Your task to perform on an android device: Go to eBay Image 0: 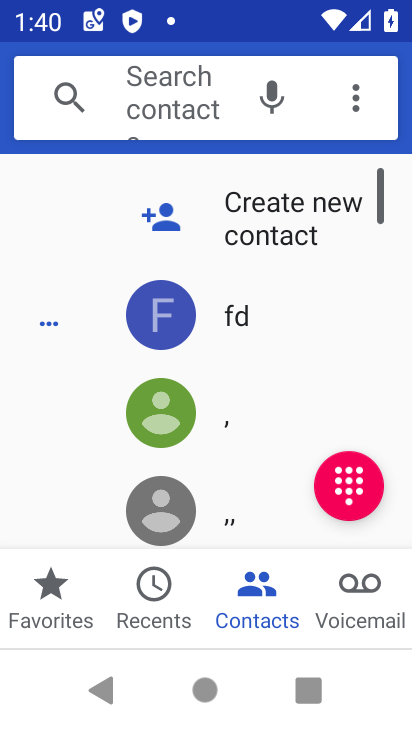
Step 0: press home button
Your task to perform on an android device: Go to eBay Image 1: 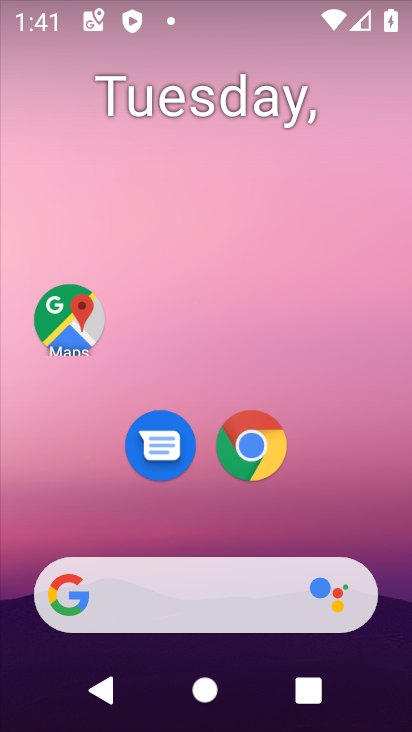
Step 1: click (259, 447)
Your task to perform on an android device: Go to eBay Image 2: 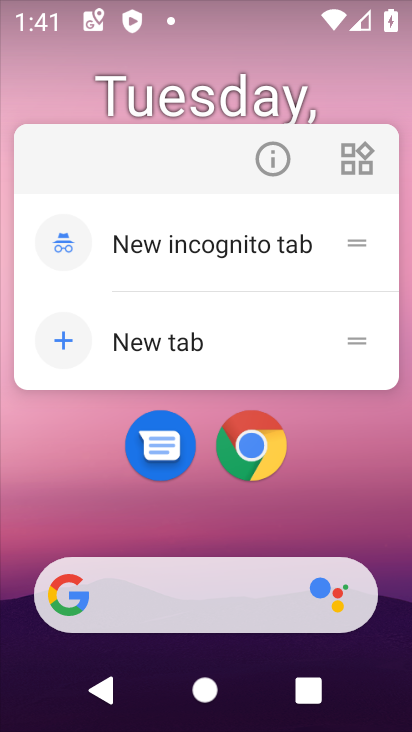
Step 2: click (259, 444)
Your task to perform on an android device: Go to eBay Image 3: 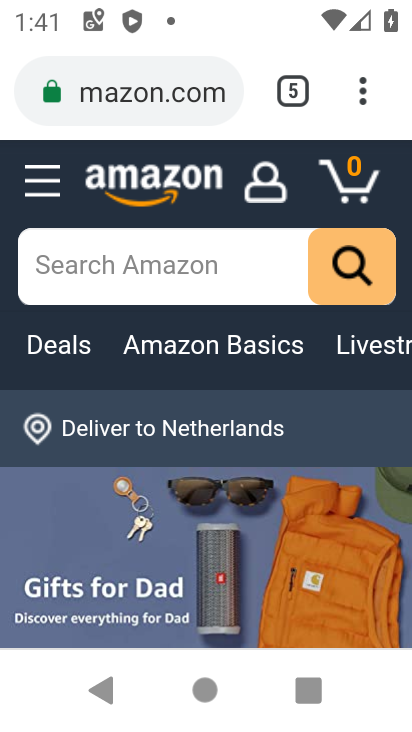
Step 3: click (172, 110)
Your task to perform on an android device: Go to eBay Image 4: 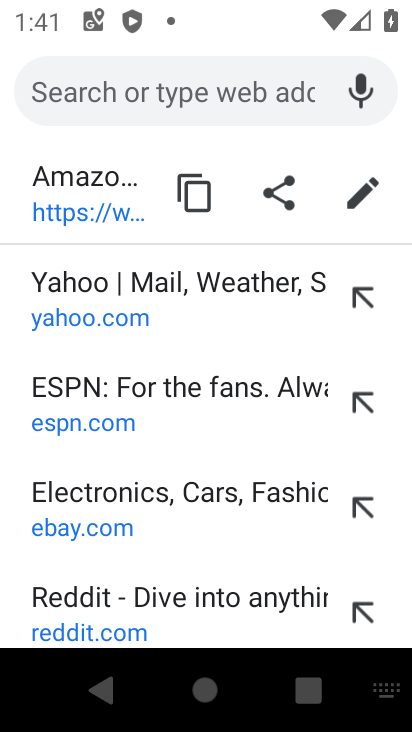
Step 4: drag from (139, 538) to (152, 250)
Your task to perform on an android device: Go to eBay Image 5: 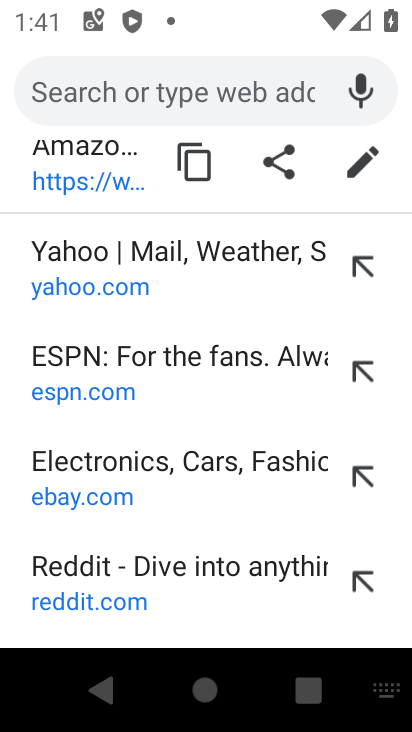
Step 5: type "ebay"
Your task to perform on an android device: Go to eBay Image 6: 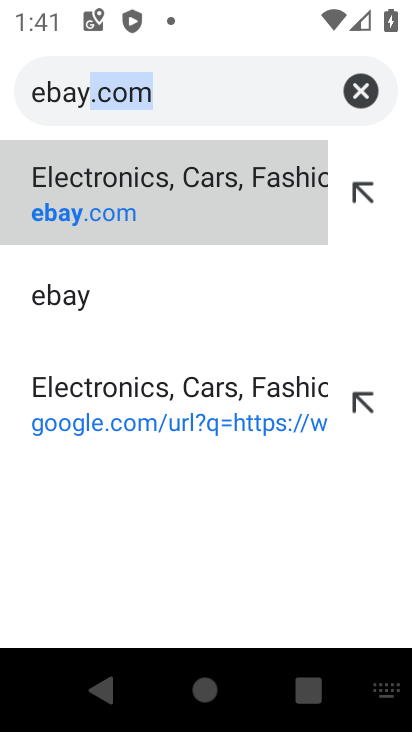
Step 6: click (117, 196)
Your task to perform on an android device: Go to eBay Image 7: 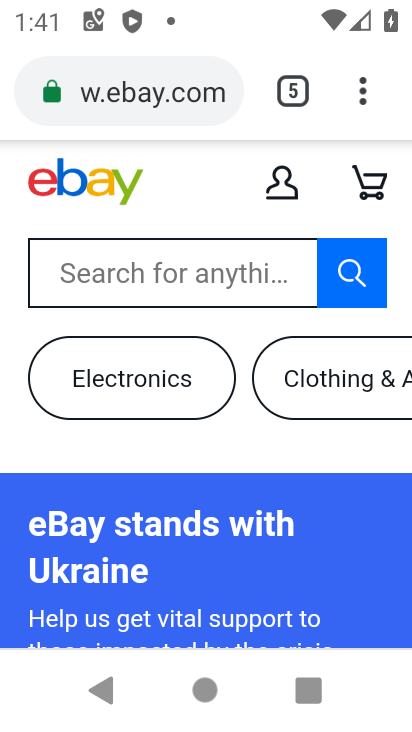
Step 7: task complete